Your task to perform on an android device: Show me recent news Image 0: 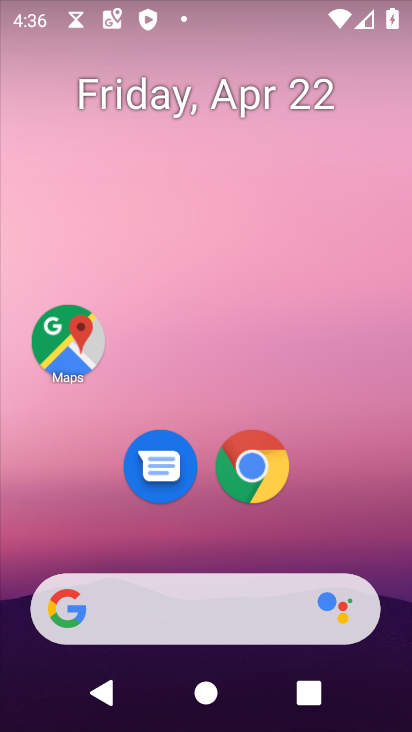
Step 0: drag from (388, 528) to (338, 151)
Your task to perform on an android device: Show me recent news Image 1: 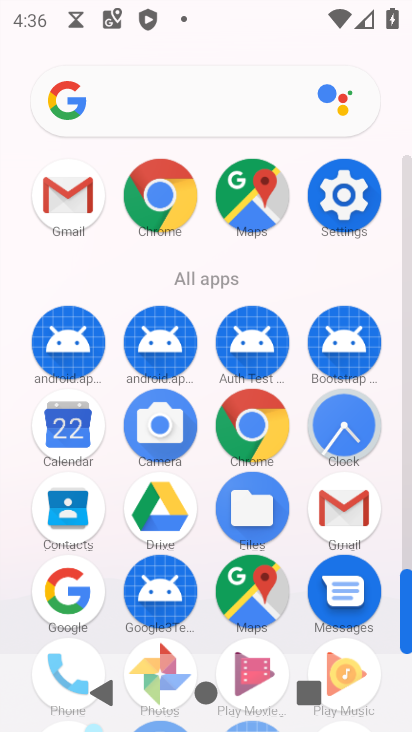
Step 1: click (177, 176)
Your task to perform on an android device: Show me recent news Image 2: 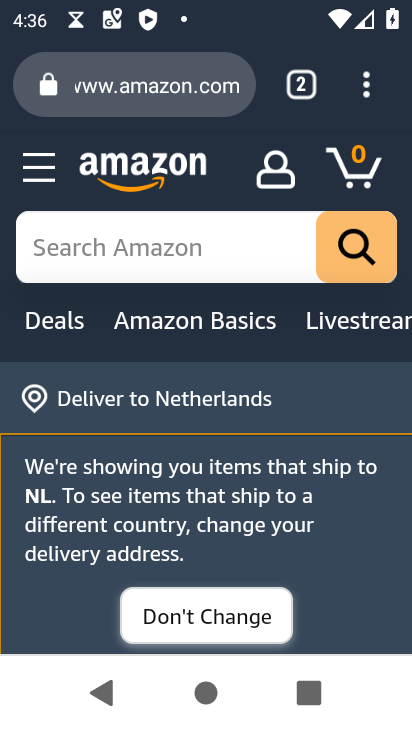
Step 2: click (177, 93)
Your task to perform on an android device: Show me recent news Image 3: 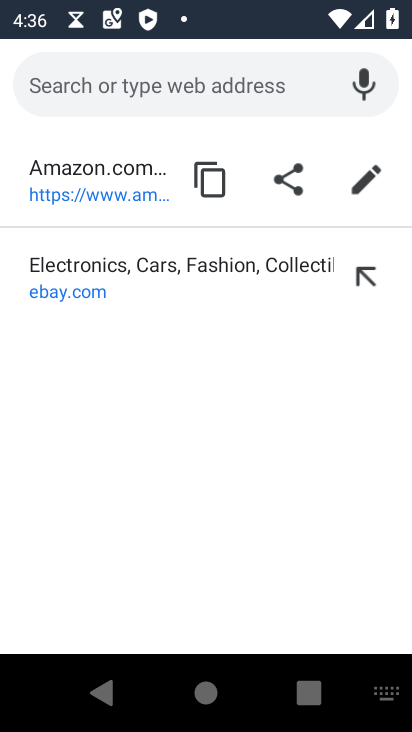
Step 3: type "recent news"
Your task to perform on an android device: Show me recent news Image 4: 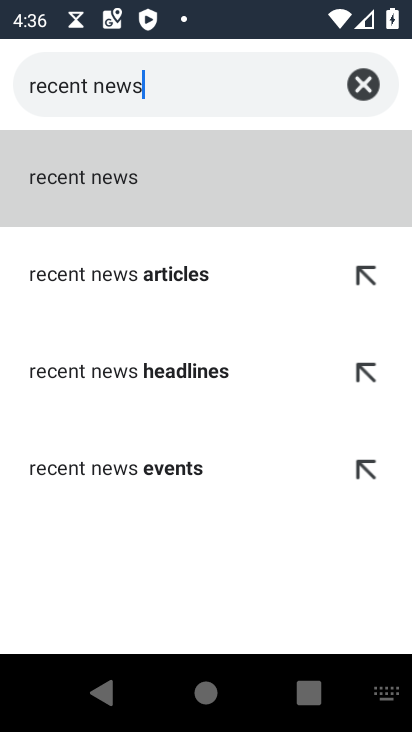
Step 4: click (149, 195)
Your task to perform on an android device: Show me recent news Image 5: 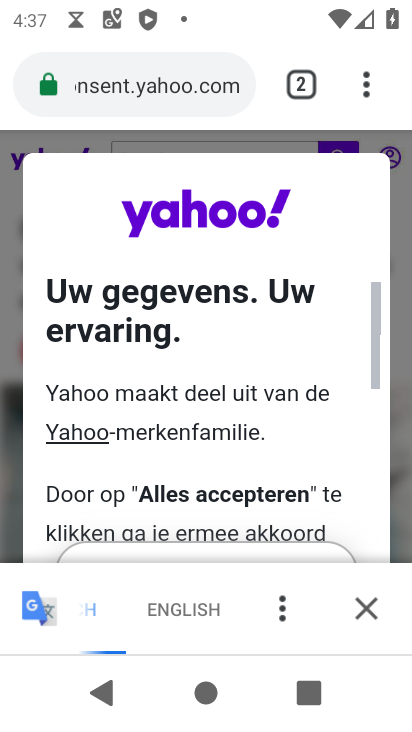
Step 5: drag from (295, 468) to (264, 147)
Your task to perform on an android device: Show me recent news Image 6: 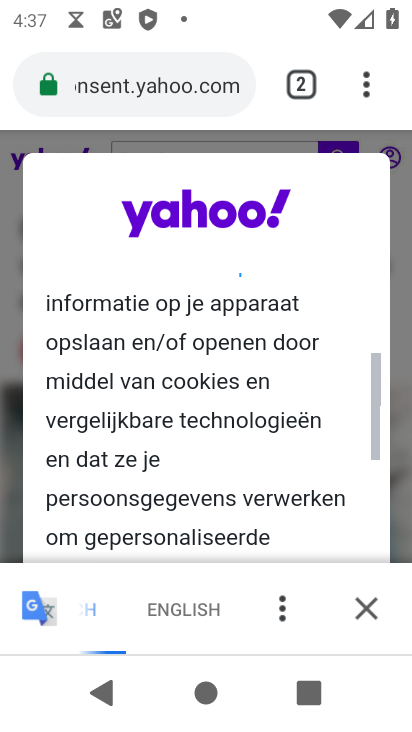
Step 6: drag from (323, 536) to (291, 214)
Your task to perform on an android device: Show me recent news Image 7: 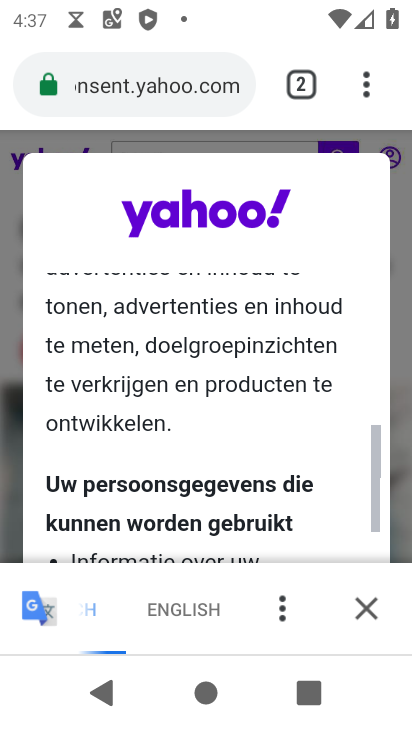
Step 7: drag from (334, 552) to (337, 235)
Your task to perform on an android device: Show me recent news Image 8: 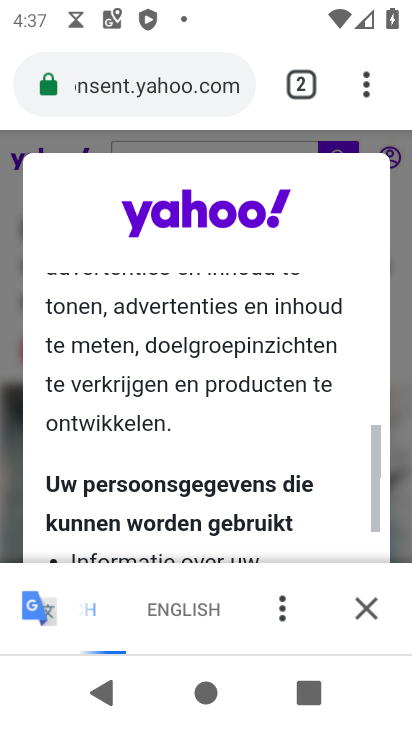
Step 8: click (371, 614)
Your task to perform on an android device: Show me recent news Image 9: 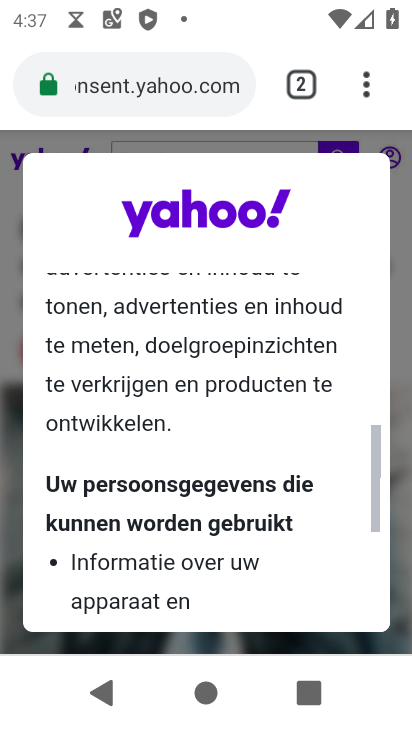
Step 9: drag from (298, 586) to (254, 233)
Your task to perform on an android device: Show me recent news Image 10: 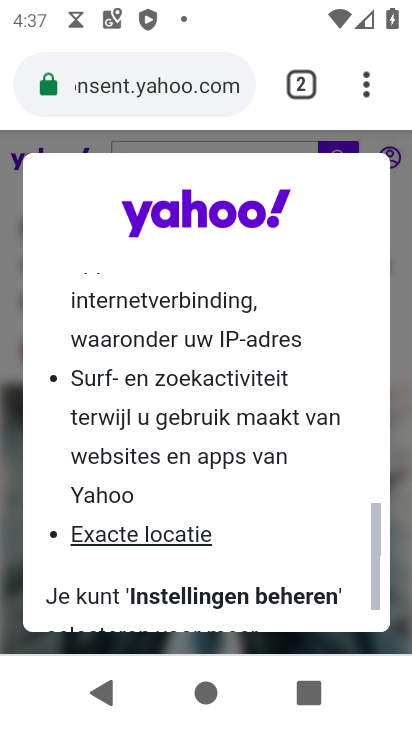
Step 10: drag from (273, 532) to (200, 211)
Your task to perform on an android device: Show me recent news Image 11: 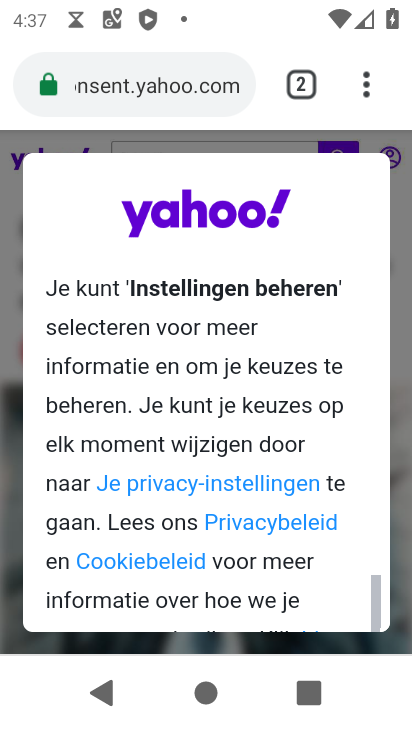
Step 11: drag from (264, 553) to (200, 271)
Your task to perform on an android device: Show me recent news Image 12: 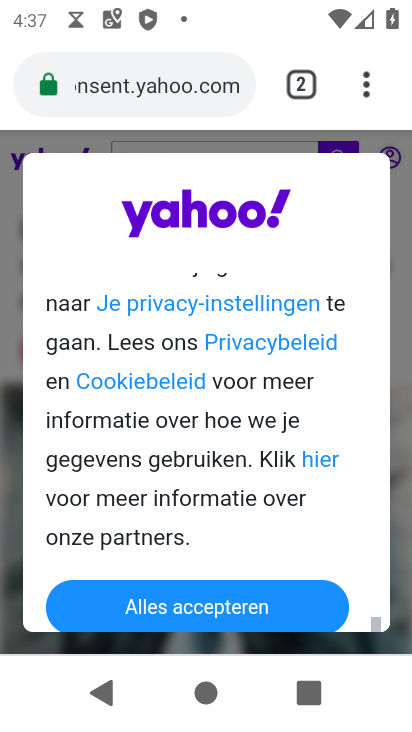
Step 12: click (264, 593)
Your task to perform on an android device: Show me recent news Image 13: 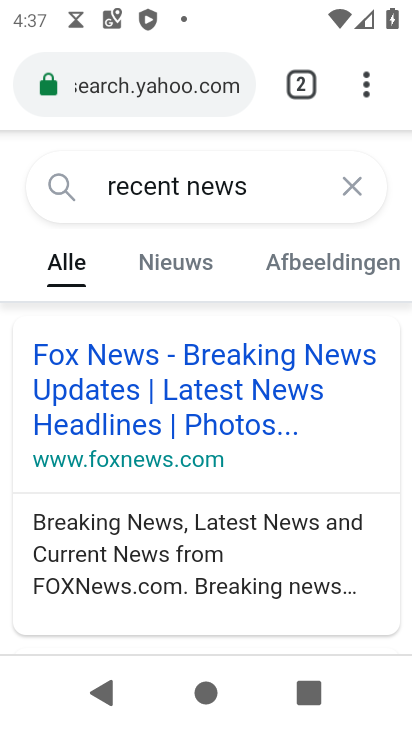
Step 13: click (238, 416)
Your task to perform on an android device: Show me recent news Image 14: 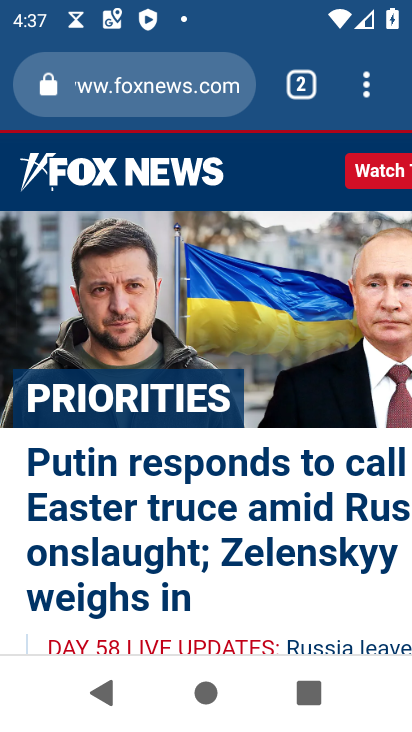
Step 14: task complete